Your task to perform on an android device: What's the weather going to be tomorrow? Image 0: 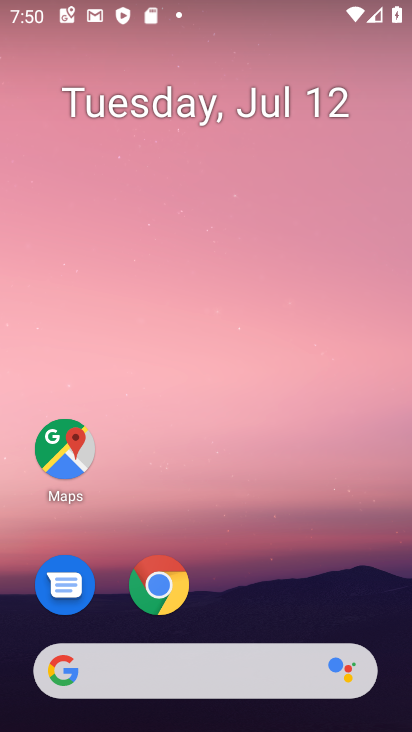
Step 0: click (251, 682)
Your task to perform on an android device: What's the weather going to be tomorrow? Image 1: 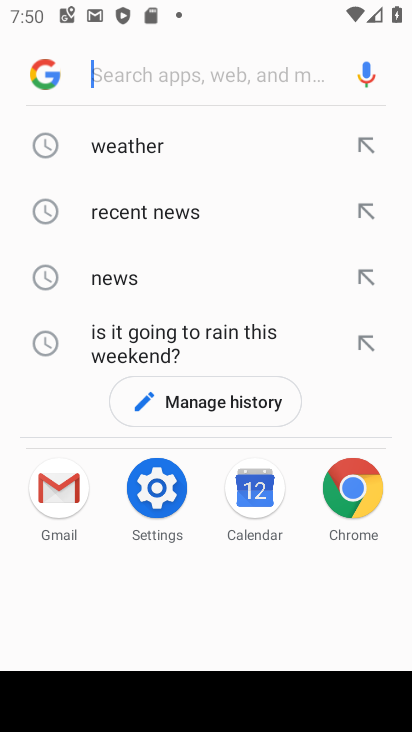
Step 1: click (133, 142)
Your task to perform on an android device: What's the weather going to be tomorrow? Image 2: 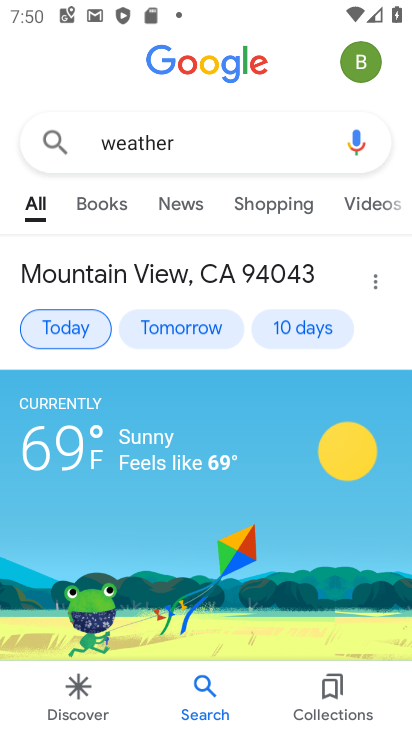
Step 2: click (85, 319)
Your task to perform on an android device: What's the weather going to be tomorrow? Image 3: 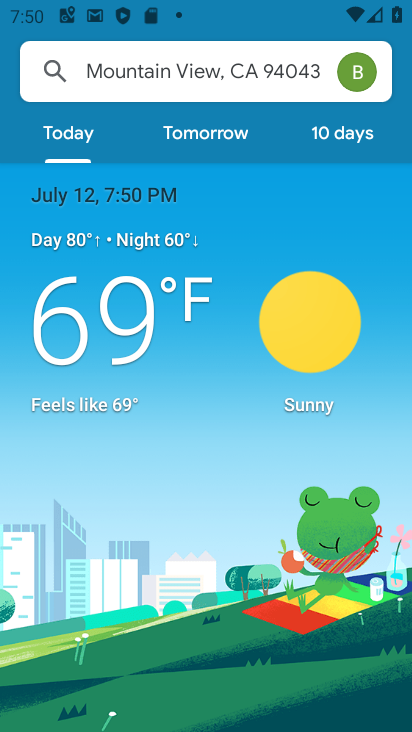
Step 3: click (201, 134)
Your task to perform on an android device: What's the weather going to be tomorrow? Image 4: 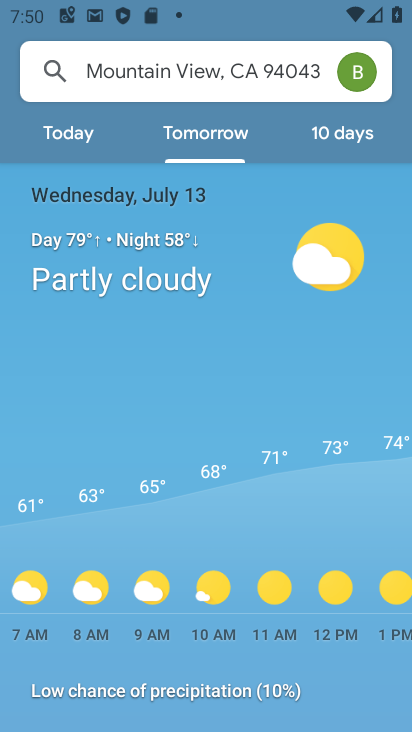
Step 4: task complete